Your task to perform on an android device: Check the news Image 0: 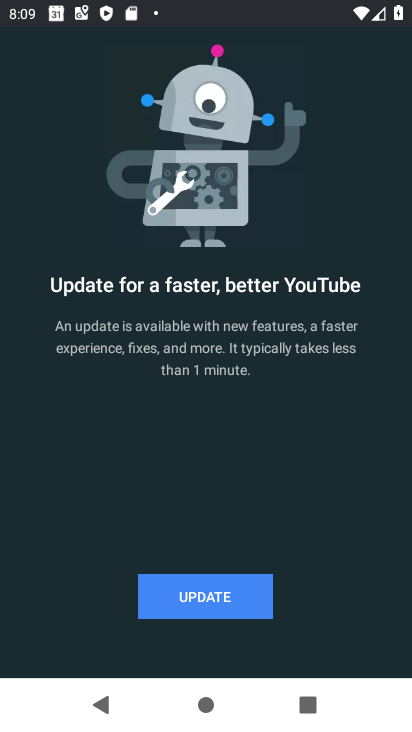
Step 0: press home button
Your task to perform on an android device: Check the news Image 1: 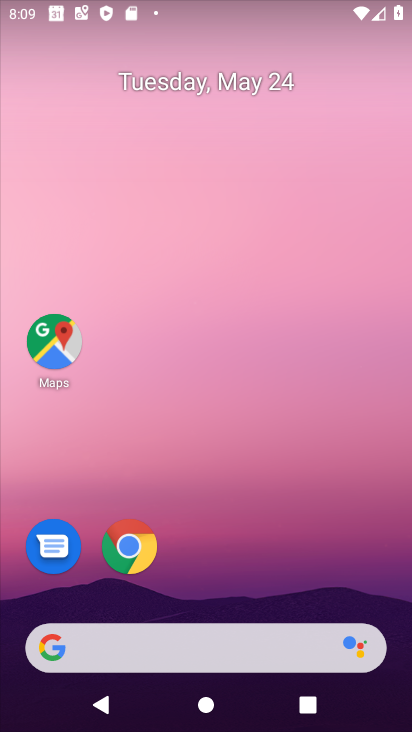
Step 1: click (250, 640)
Your task to perform on an android device: Check the news Image 2: 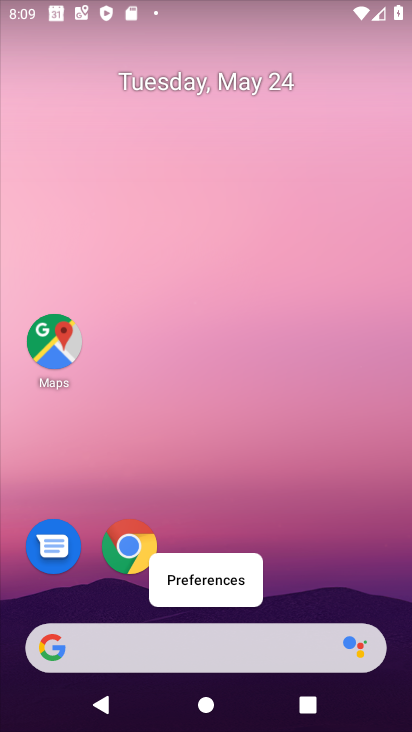
Step 2: click (217, 666)
Your task to perform on an android device: Check the news Image 3: 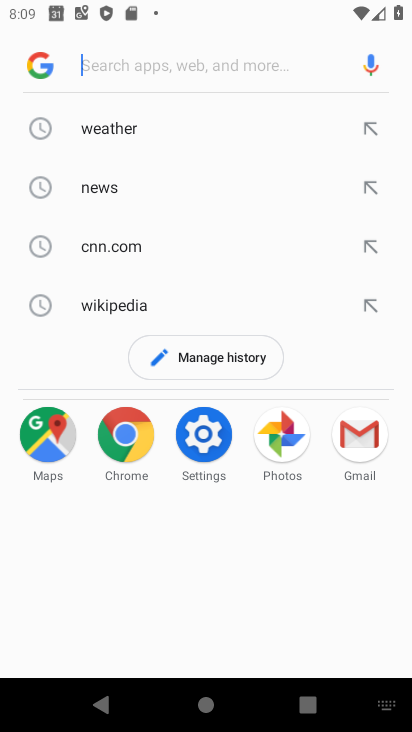
Step 3: click (65, 189)
Your task to perform on an android device: Check the news Image 4: 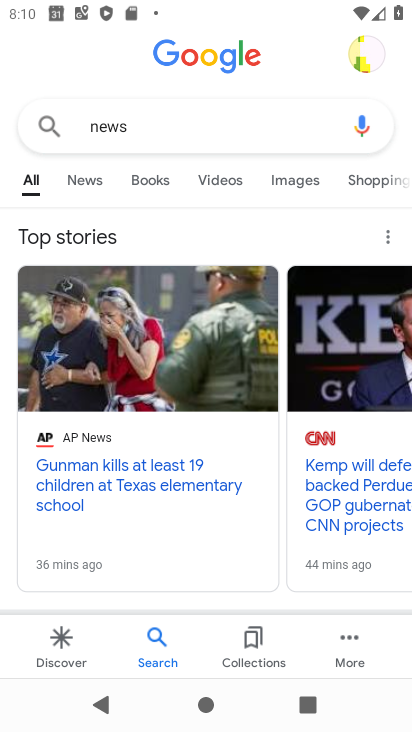
Step 4: drag from (210, 517) to (55, 527)
Your task to perform on an android device: Check the news Image 5: 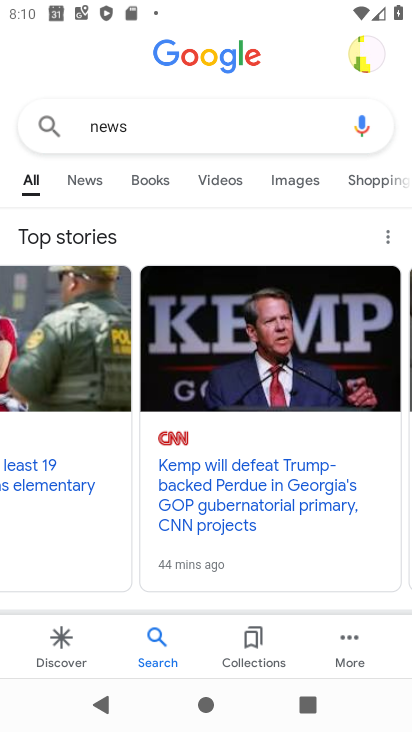
Step 5: drag from (328, 537) to (6, 563)
Your task to perform on an android device: Check the news Image 6: 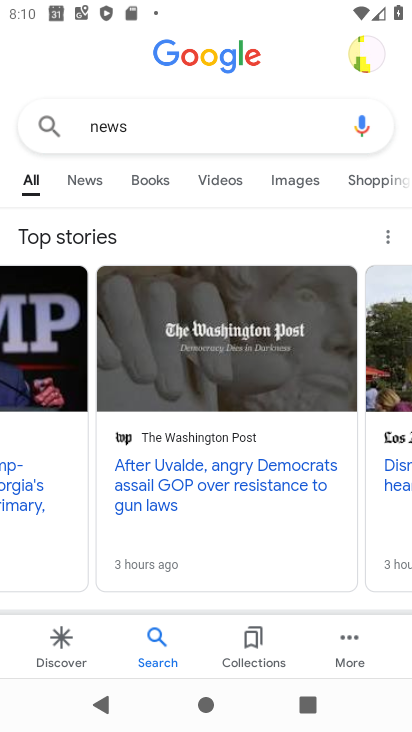
Step 6: click (89, 175)
Your task to perform on an android device: Check the news Image 7: 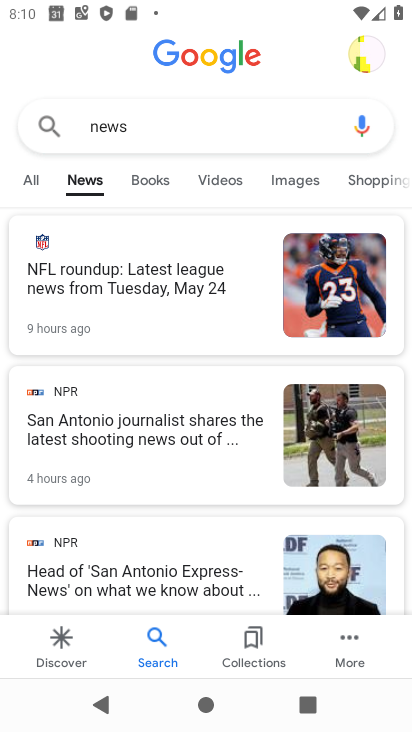
Step 7: task complete